Your task to perform on an android device: Open internet settings Image 0: 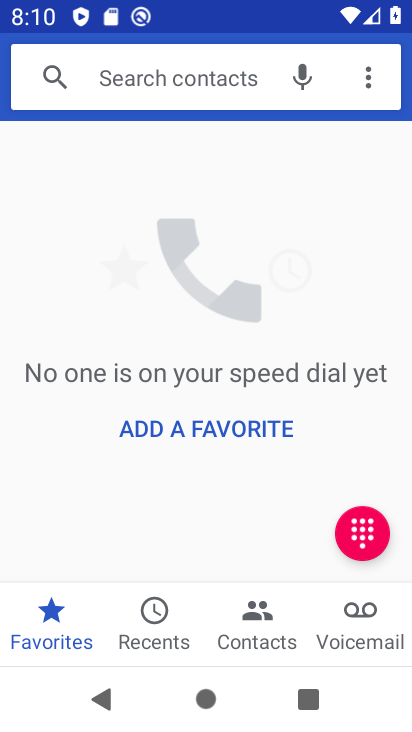
Step 0: press home button
Your task to perform on an android device: Open internet settings Image 1: 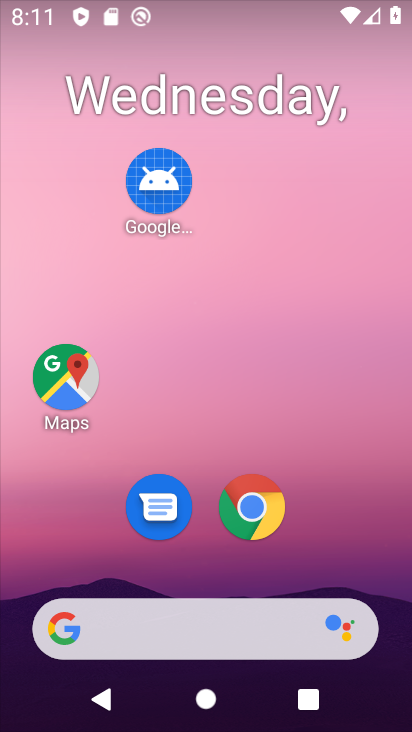
Step 1: drag from (228, 599) to (242, 22)
Your task to perform on an android device: Open internet settings Image 2: 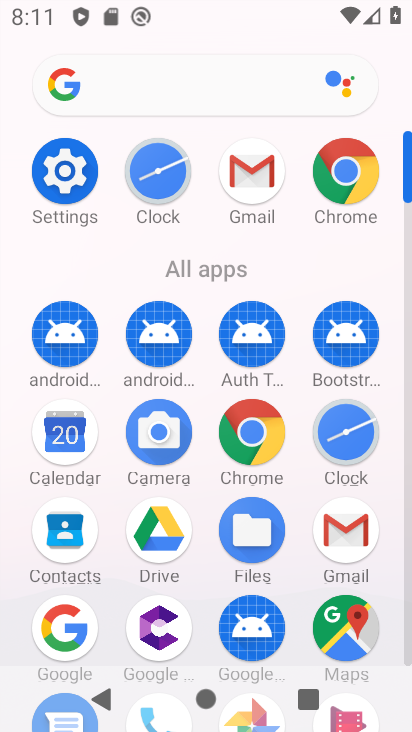
Step 2: click (79, 203)
Your task to perform on an android device: Open internet settings Image 3: 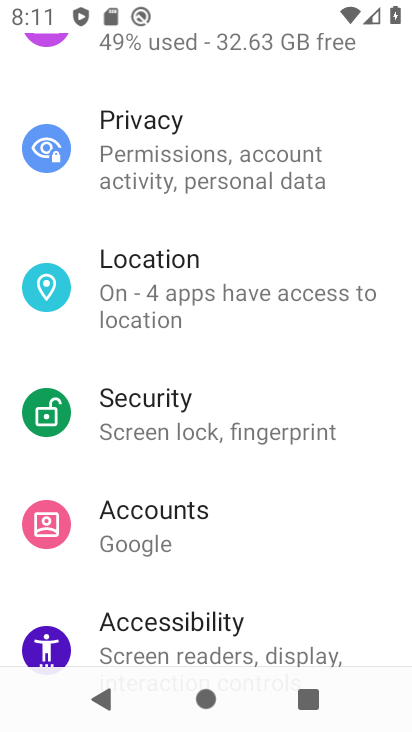
Step 3: drag from (197, 264) to (200, 671)
Your task to perform on an android device: Open internet settings Image 4: 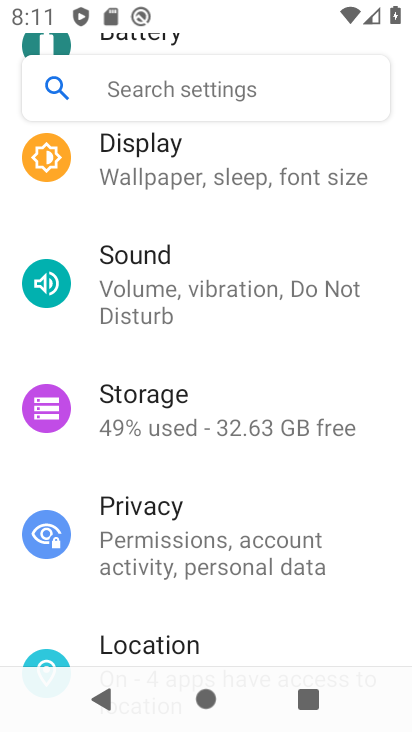
Step 4: drag from (184, 180) to (185, 532)
Your task to perform on an android device: Open internet settings Image 5: 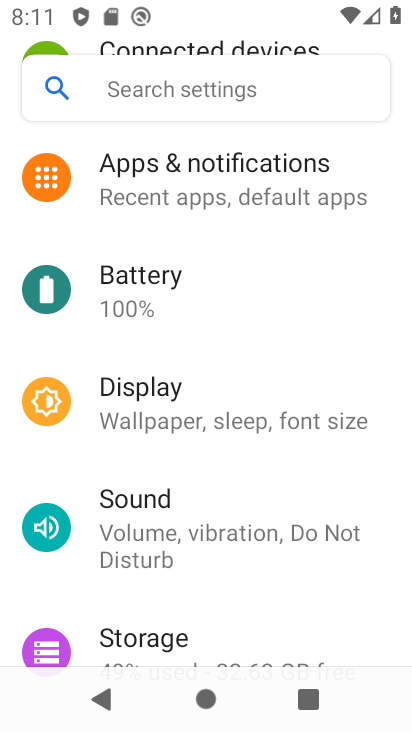
Step 5: drag from (154, 214) to (164, 612)
Your task to perform on an android device: Open internet settings Image 6: 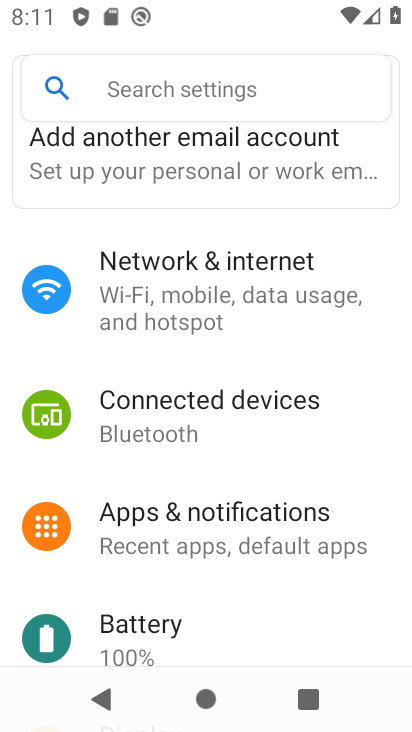
Step 6: click (210, 283)
Your task to perform on an android device: Open internet settings Image 7: 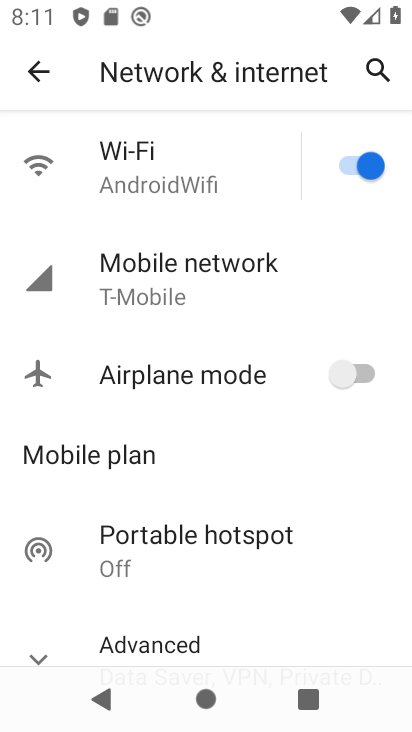
Step 7: click (204, 280)
Your task to perform on an android device: Open internet settings Image 8: 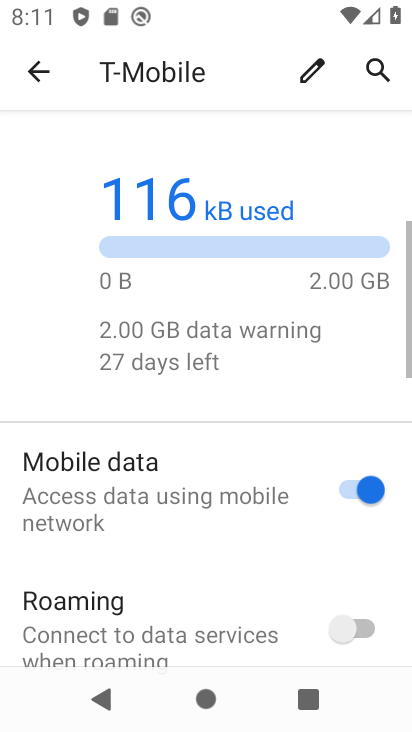
Step 8: drag from (190, 550) to (180, 93)
Your task to perform on an android device: Open internet settings Image 9: 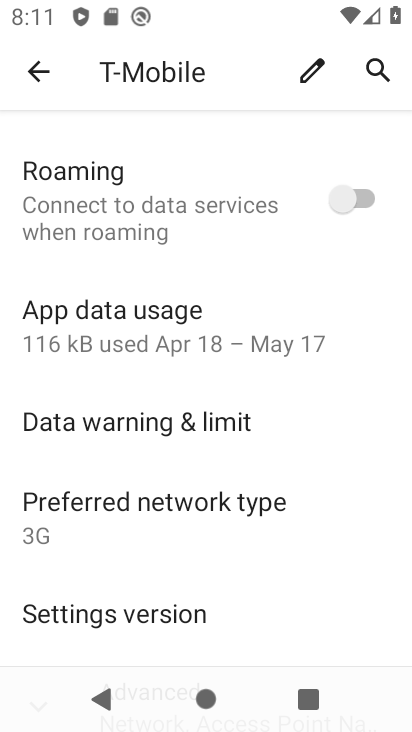
Step 9: drag from (197, 574) to (201, 16)
Your task to perform on an android device: Open internet settings Image 10: 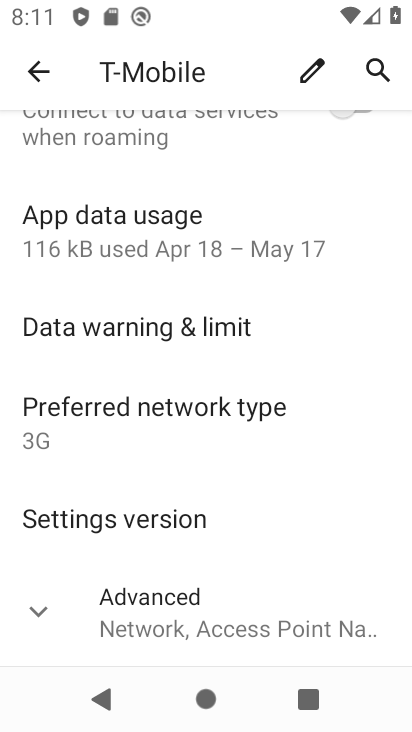
Step 10: click (211, 637)
Your task to perform on an android device: Open internet settings Image 11: 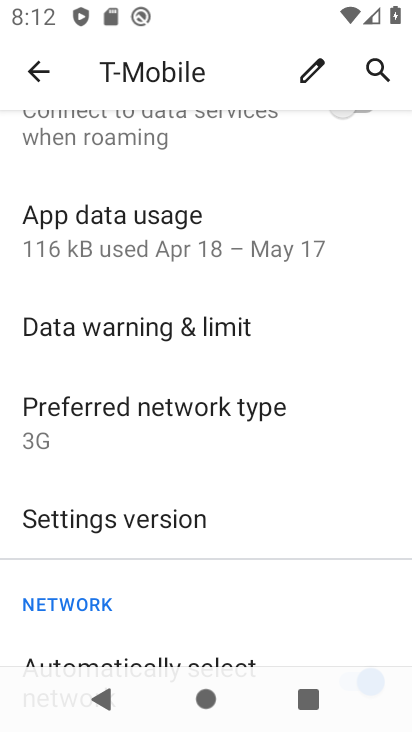
Step 11: task complete